Your task to perform on an android device: Show me popular videos on Youtube Image 0: 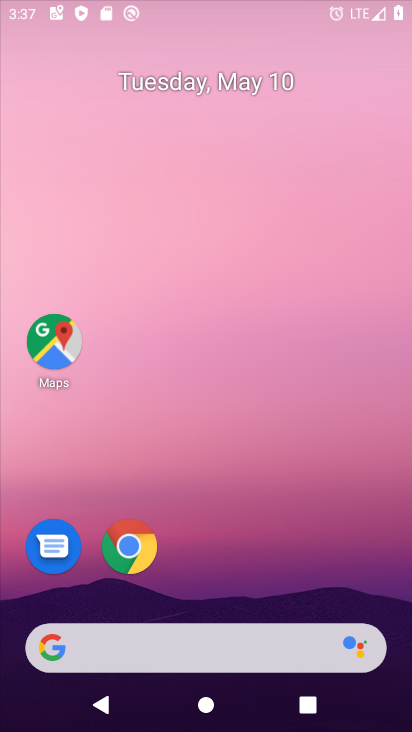
Step 0: click (119, 555)
Your task to perform on an android device: Show me popular videos on Youtube Image 1: 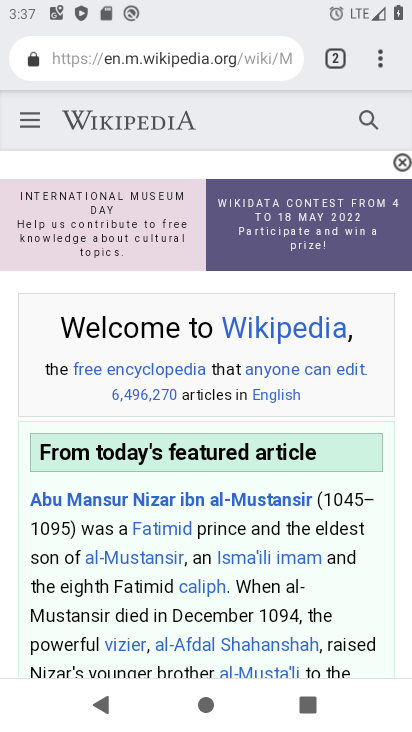
Step 1: press home button
Your task to perform on an android device: Show me popular videos on Youtube Image 2: 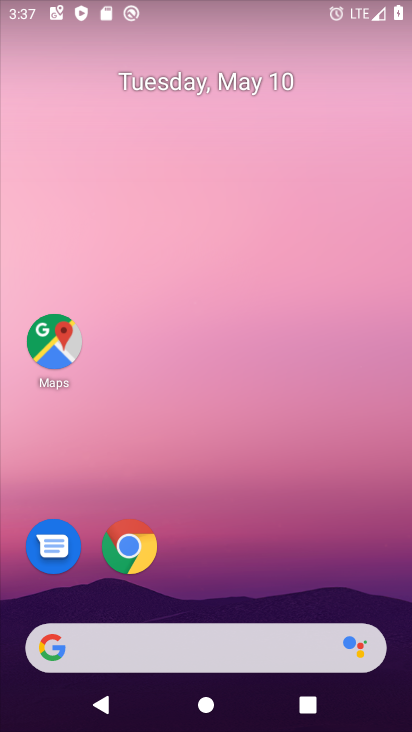
Step 2: drag from (244, 597) to (344, 30)
Your task to perform on an android device: Show me popular videos on Youtube Image 3: 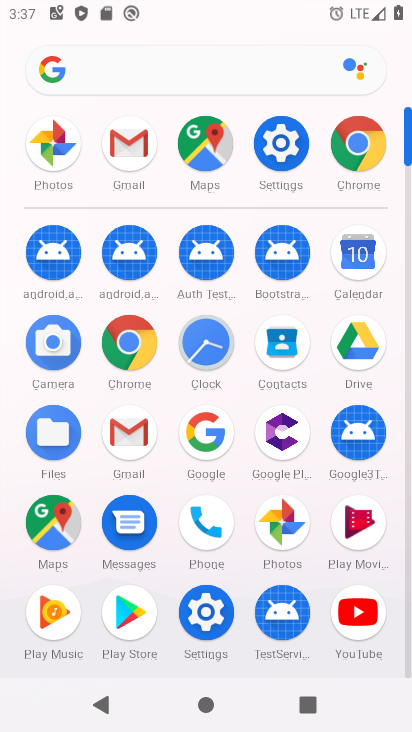
Step 3: click (375, 616)
Your task to perform on an android device: Show me popular videos on Youtube Image 4: 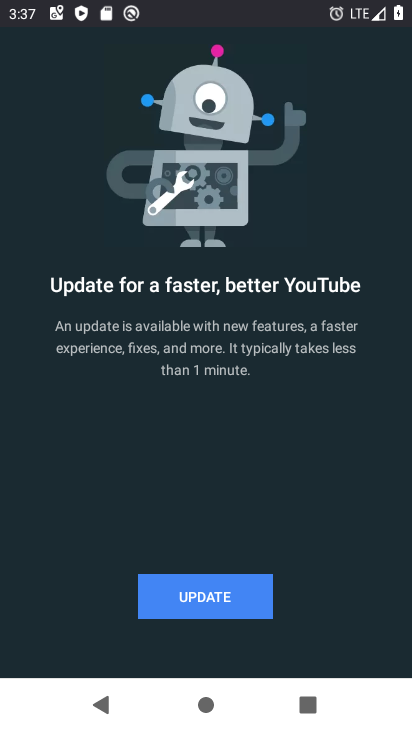
Step 4: click (238, 605)
Your task to perform on an android device: Show me popular videos on Youtube Image 5: 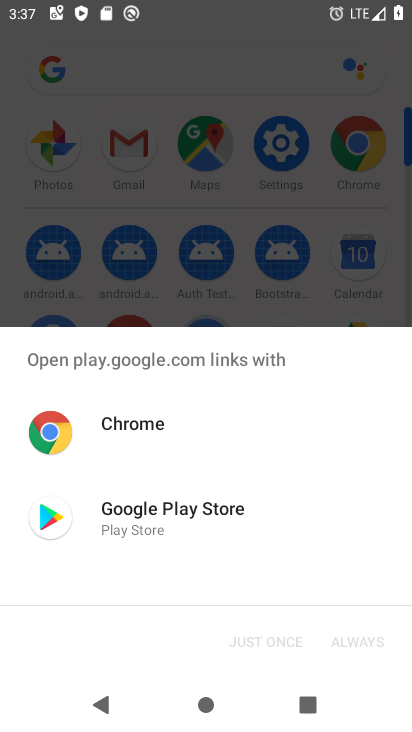
Step 5: click (128, 515)
Your task to perform on an android device: Show me popular videos on Youtube Image 6: 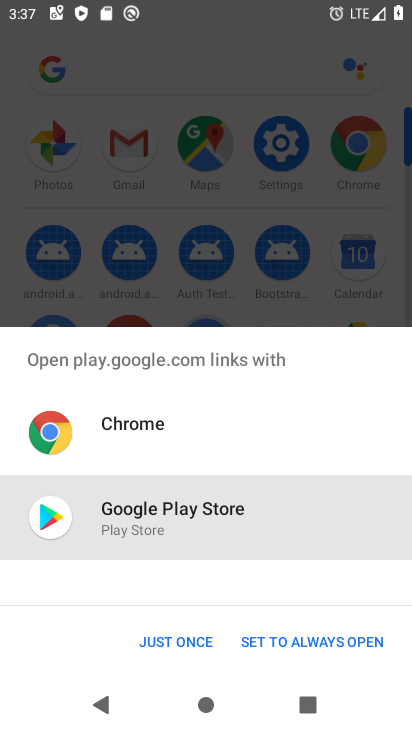
Step 6: click (150, 646)
Your task to perform on an android device: Show me popular videos on Youtube Image 7: 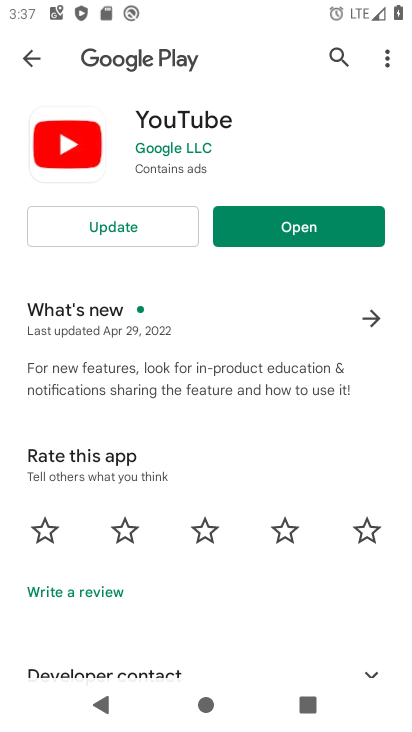
Step 7: click (143, 228)
Your task to perform on an android device: Show me popular videos on Youtube Image 8: 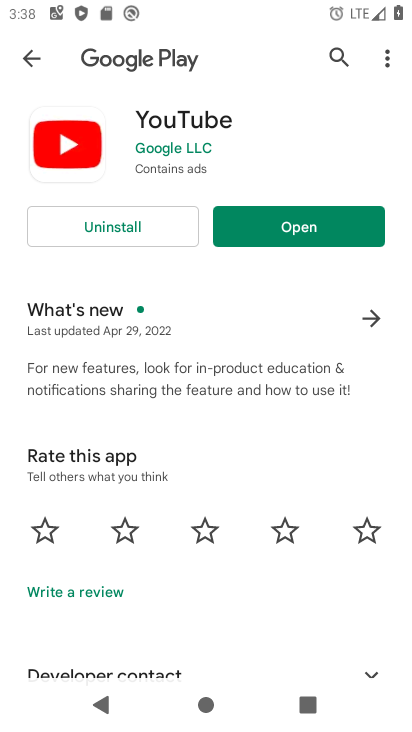
Step 8: click (318, 221)
Your task to perform on an android device: Show me popular videos on Youtube Image 9: 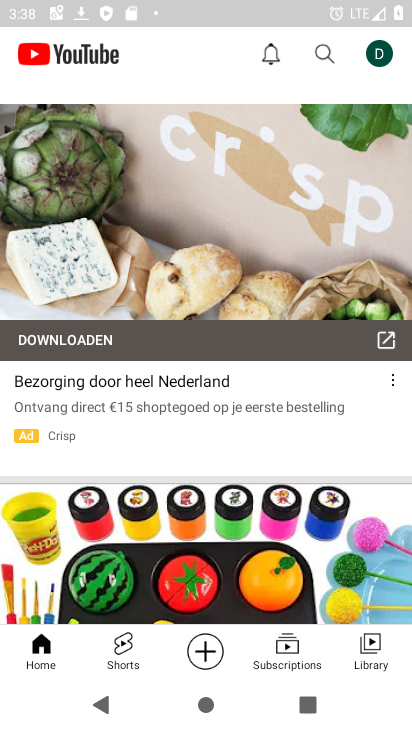
Step 9: click (73, 102)
Your task to perform on an android device: Show me popular videos on Youtube Image 10: 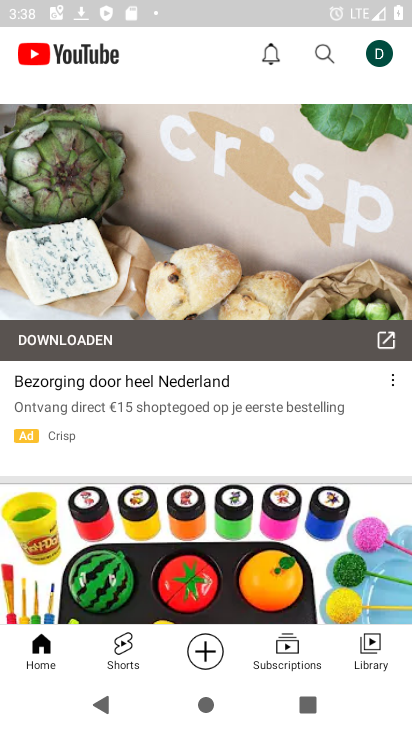
Step 10: drag from (83, 151) to (108, 426)
Your task to perform on an android device: Show me popular videos on Youtube Image 11: 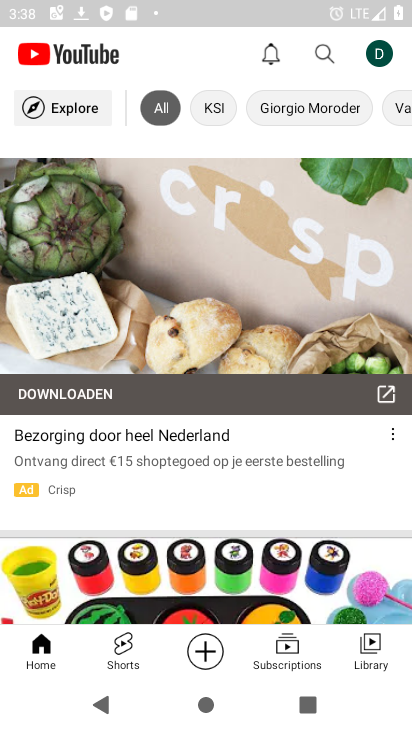
Step 11: click (79, 98)
Your task to perform on an android device: Show me popular videos on Youtube Image 12: 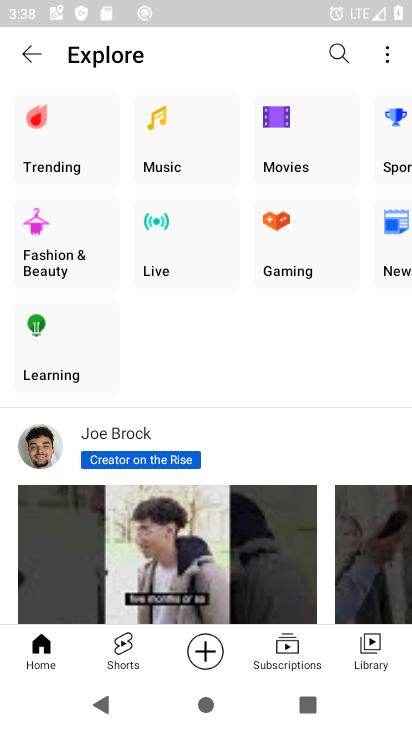
Step 12: click (68, 136)
Your task to perform on an android device: Show me popular videos on Youtube Image 13: 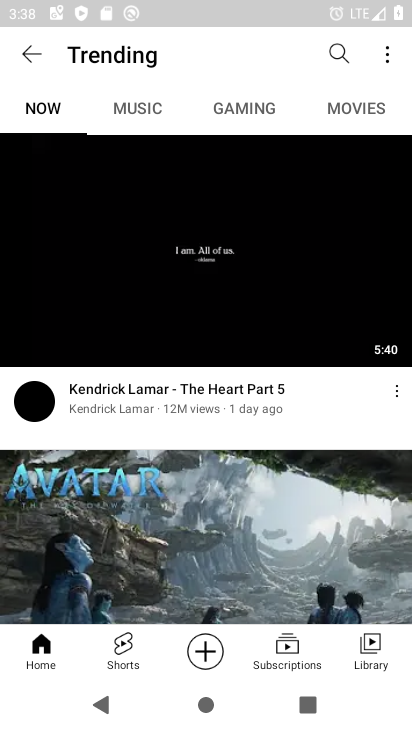
Step 13: task complete